Your task to perform on an android device: What's the weather going to be tomorrow? Image 0: 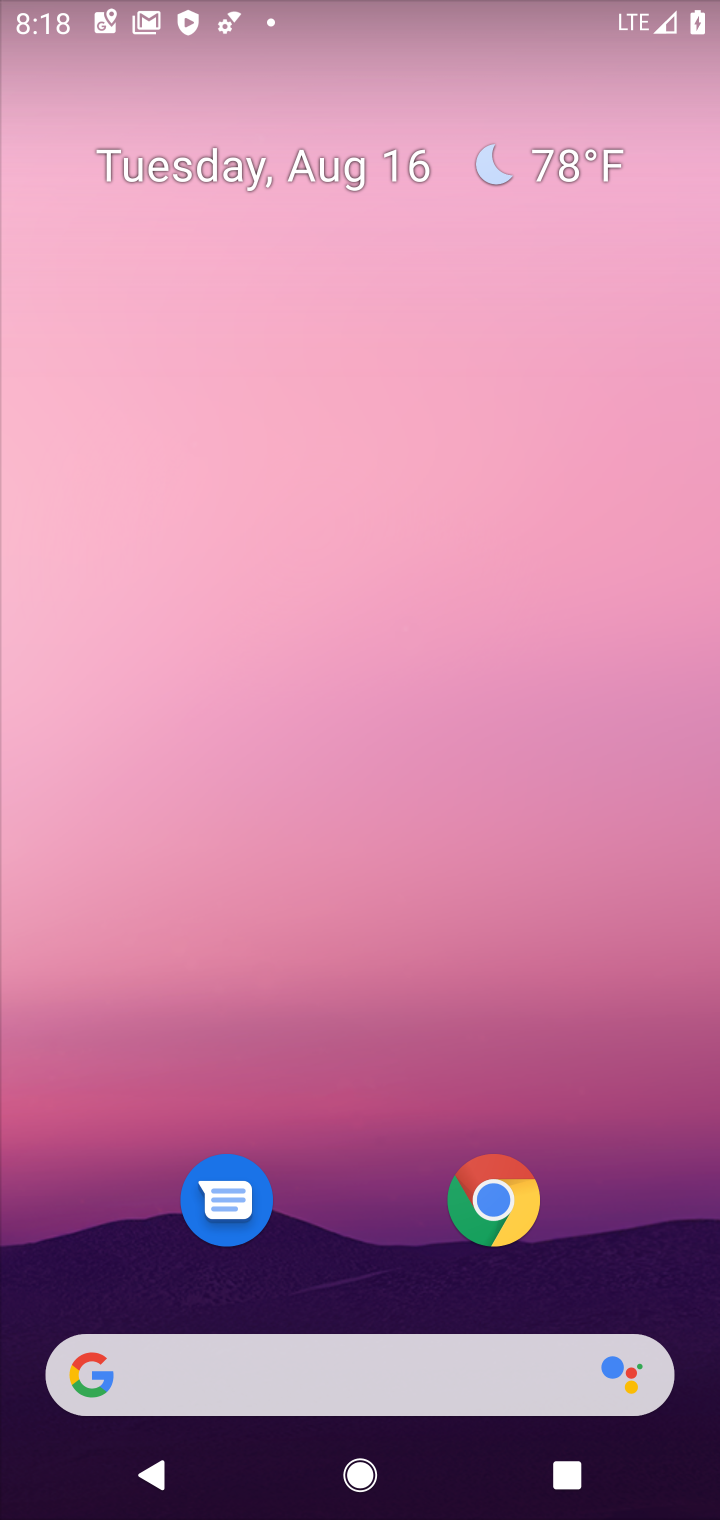
Step 0: click (540, 171)
Your task to perform on an android device: What's the weather going to be tomorrow? Image 1: 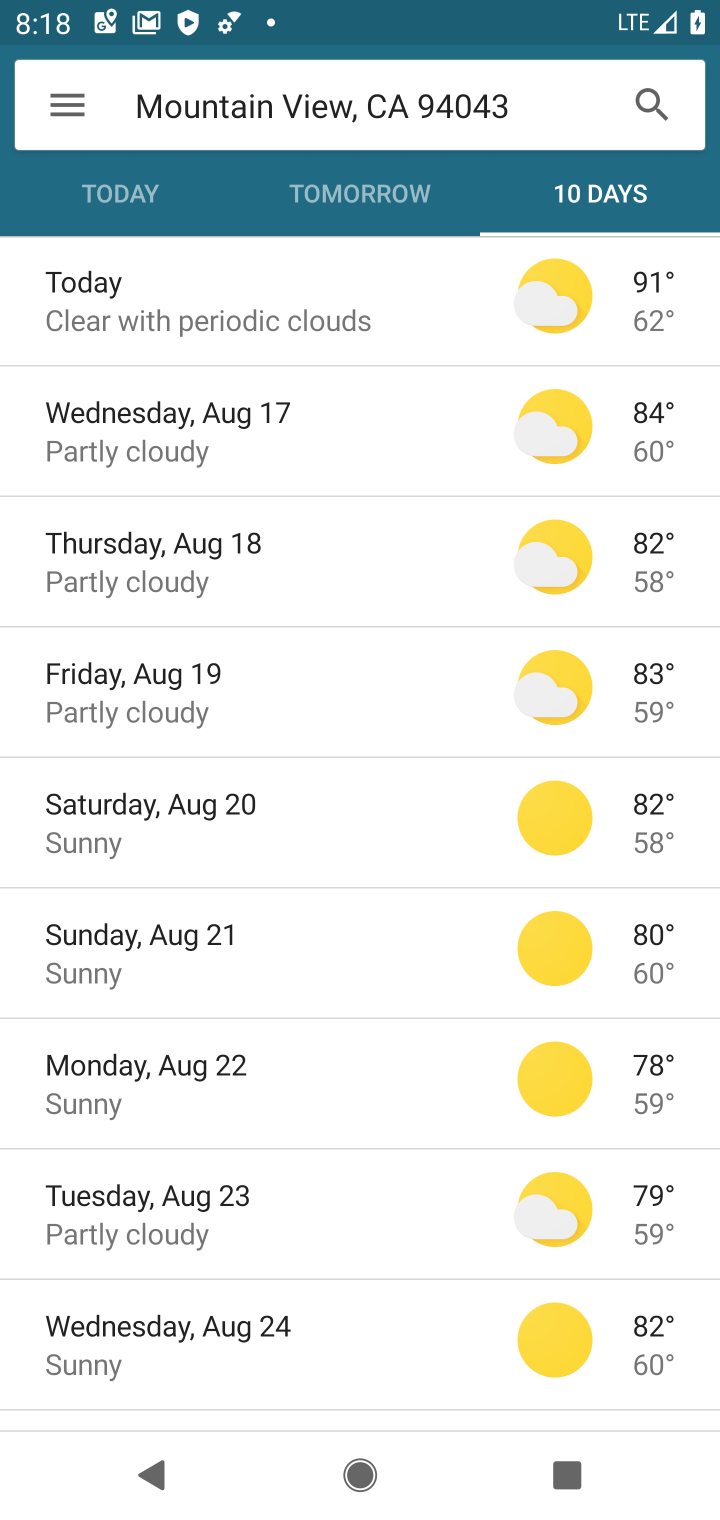
Step 1: click (361, 187)
Your task to perform on an android device: What's the weather going to be tomorrow? Image 2: 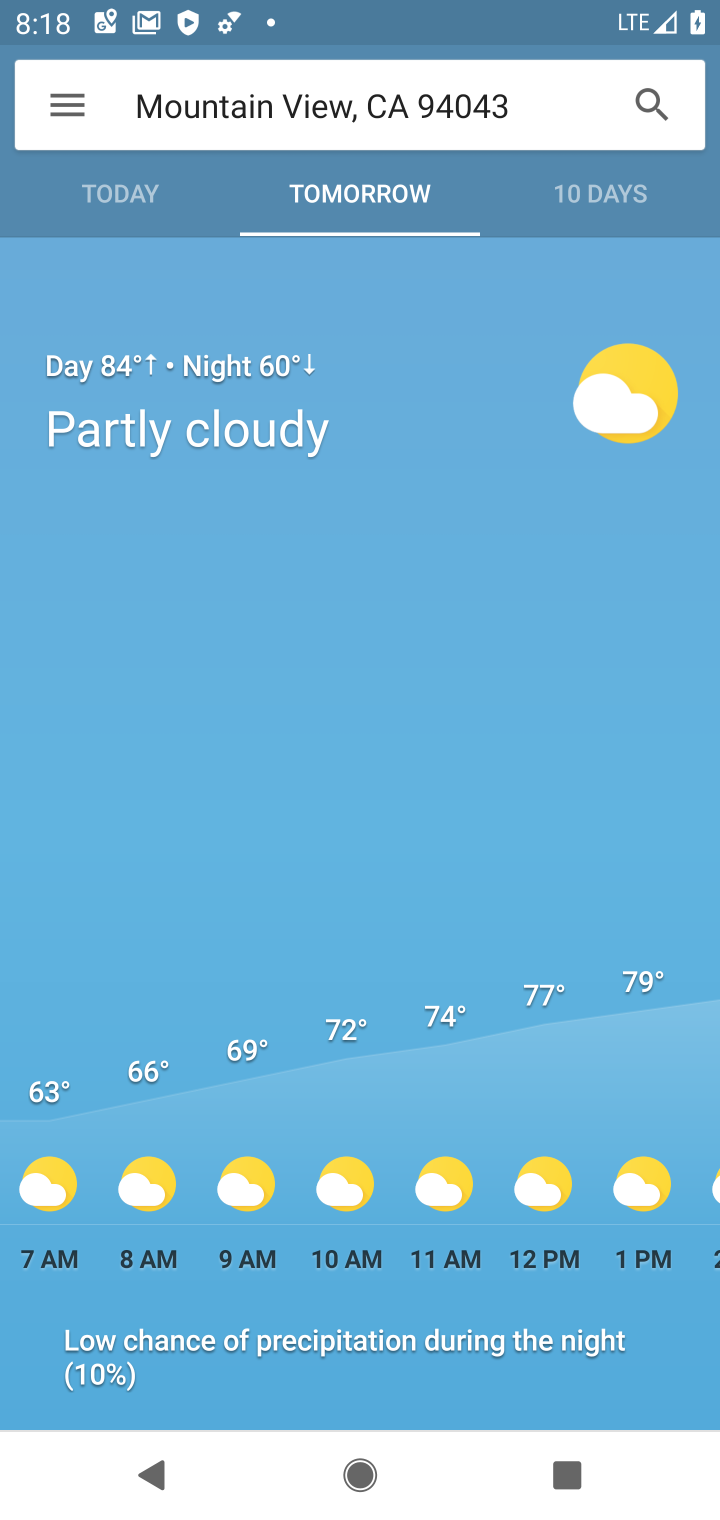
Step 2: task complete